Your task to perform on an android device: toggle notification dots Image 0: 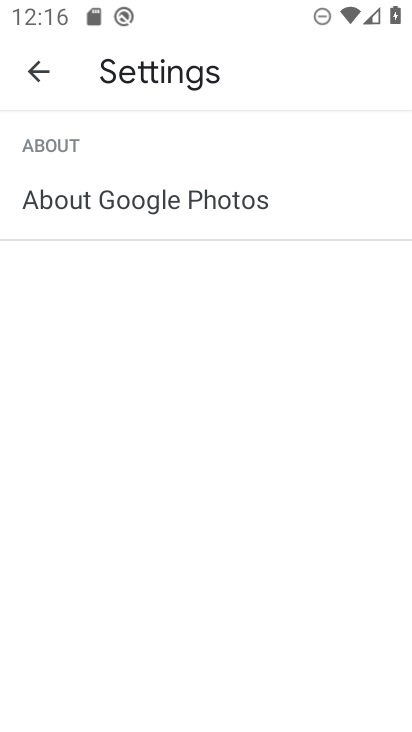
Step 0: press home button
Your task to perform on an android device: toggle notification dots Image 1: 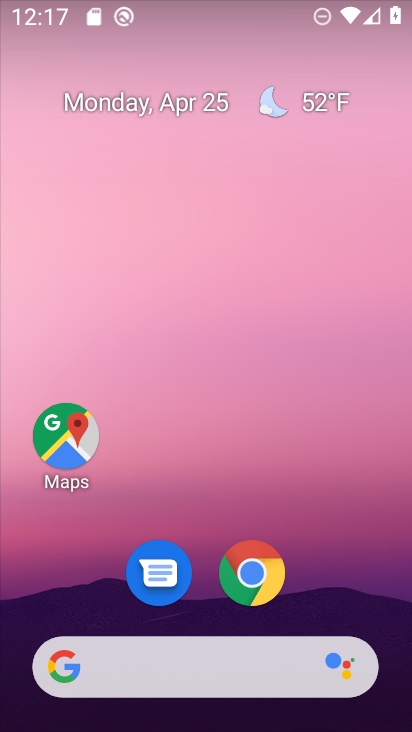
Step 1: drag from (220, 701) to (199, 130)
Your task to perform on an android device: toggle notification dots Image 2: 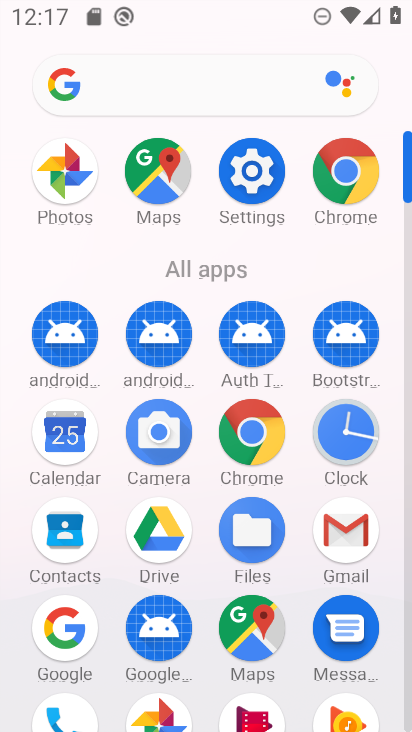
Step 2: click (253, 165)
Your task to perform on an android device: toggle notification dots Image 3: 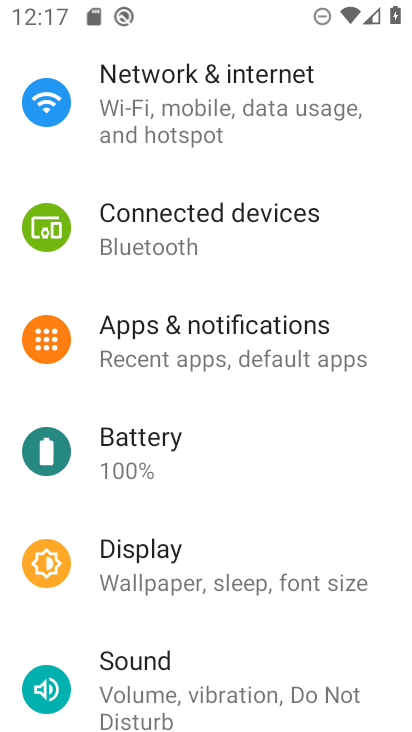
Step 3: click (220, 355)
Your task to perform on an android device: toggle notification dots Image 4: 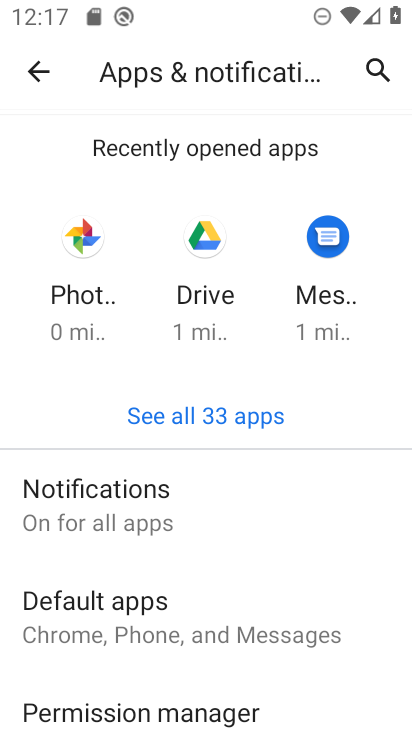
Step 4: click (122, 513)
Your task to perform on an android device: toggle notification dots Image 5: 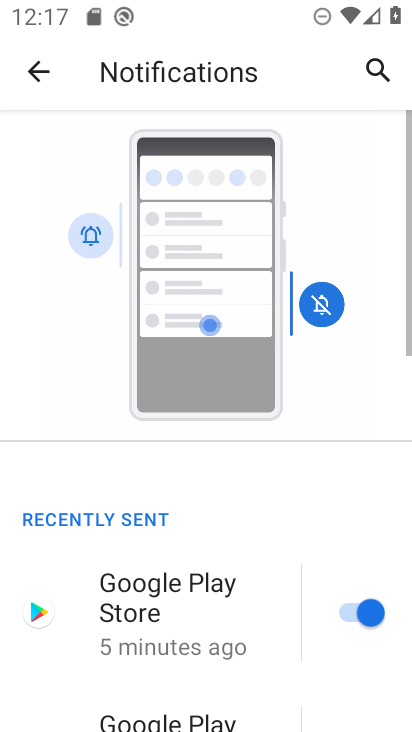
Step 5: drag from (253, 669) to (221, 329)
Your task to perform on an android device: toggle notification dots Image 6: 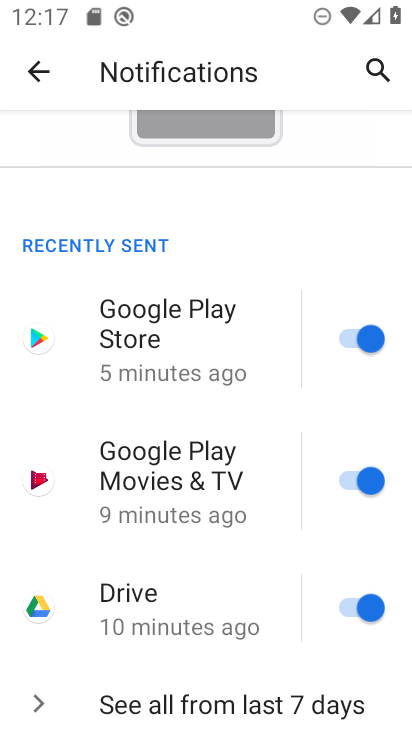
Step 6: drag from (233, 687) to (200, 263)
Your task to perform on an android device: toggle notification dots Image 7: 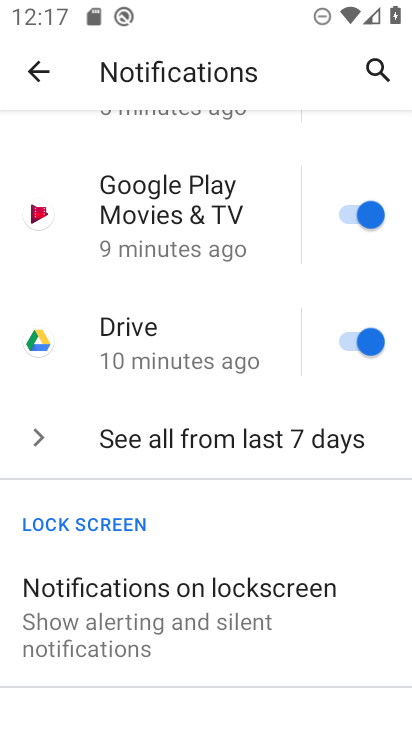
Step 7: drag from (239, 683) to (217, 339)
Your task to perform on an android device: toggle notification dots Image 8: 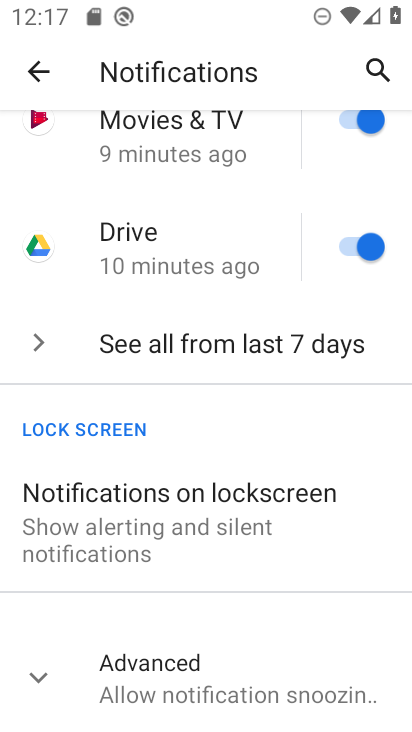
Step 8: click (184, 680)
Your task to perform on an android device: toggle notification dots Image 9: 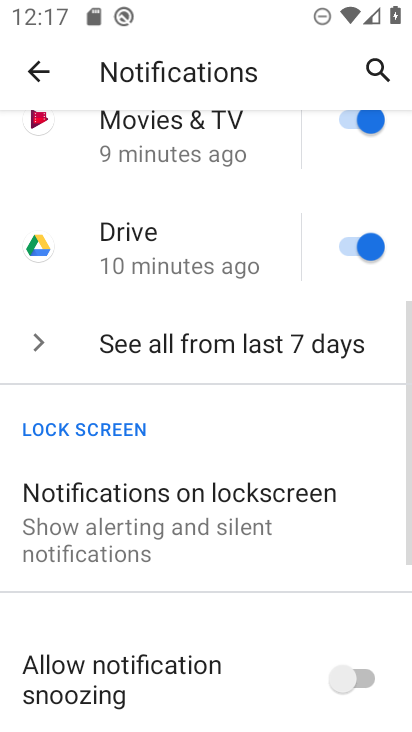
Step 9: drag from (263, 657) to (240, 335)
Your task to perform on an android device: toggle notification dots Image 10: 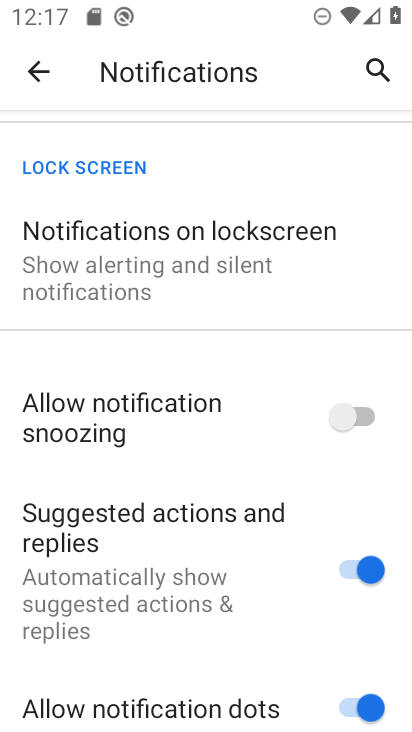
Step 10: click (349, 707)
Your task to perform on an android device: toggle notification dots Image 11: 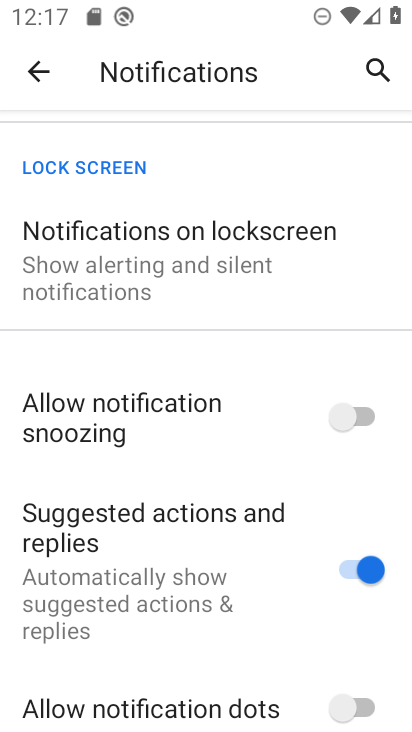
Step 11: task complete